Your task to perform on an android device: Open CNN.com Image 0: 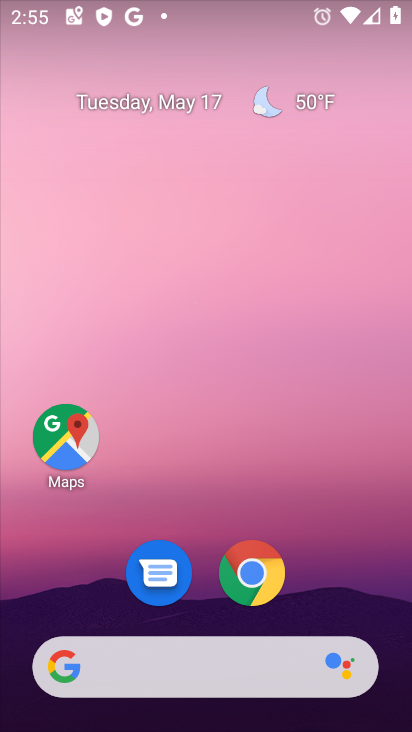
Step 0: click (250, 579)
Your task to perform on an android device: Open CNN.com Image 1: 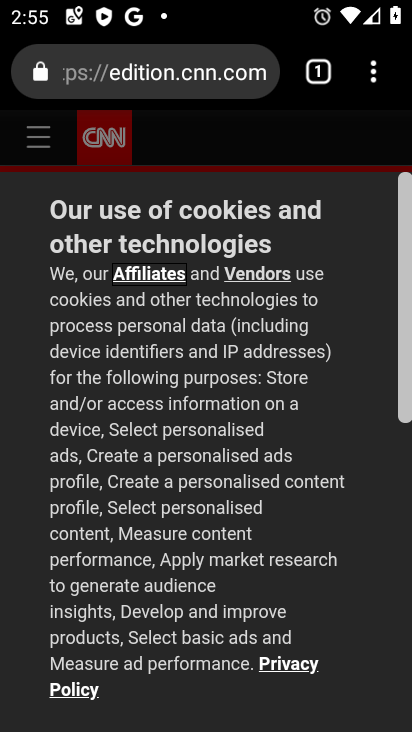
Step 1: task complete